Your task to perform on an android device: Open settings Image 0: 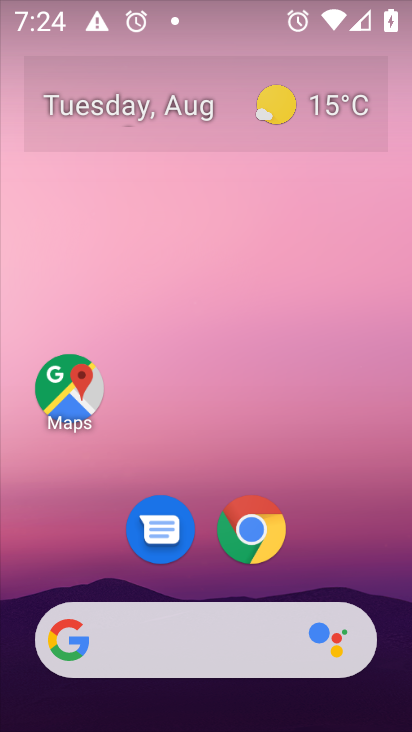
Step 0: press home button
Your task to perform on an android device: Open settings Image 1: 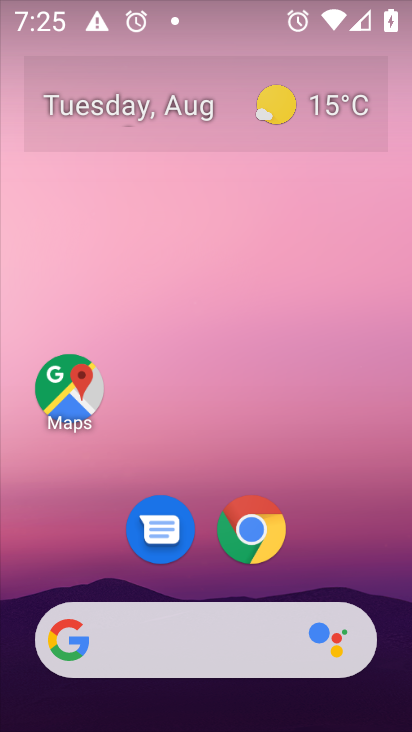
Step 1: drag from (224, 594) to (214, 93)
Your task to perform on an android device: Open settings Image 2: 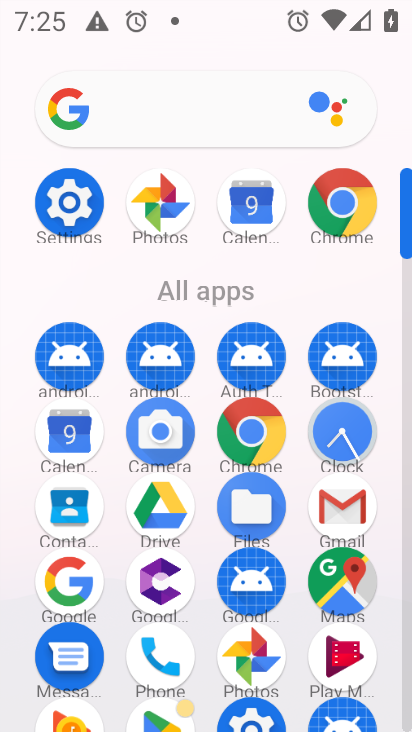
Step 2: click (75, 204)
Your task to perform on an android device: Open settings Image 3: 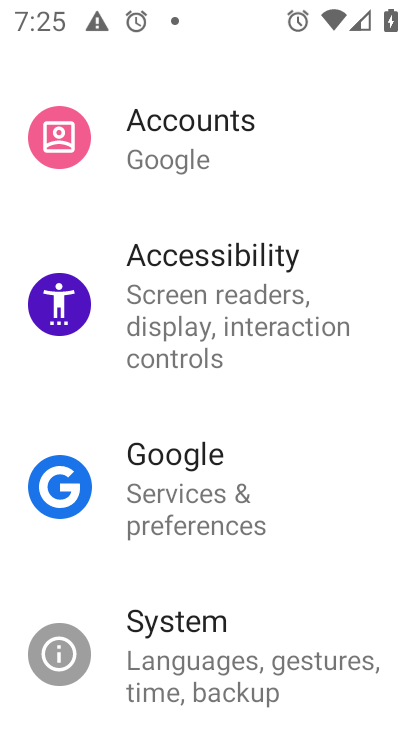
Step 3: task complete